Your task to perform on an android device: stop showing notifications on the lock screen Image 0: 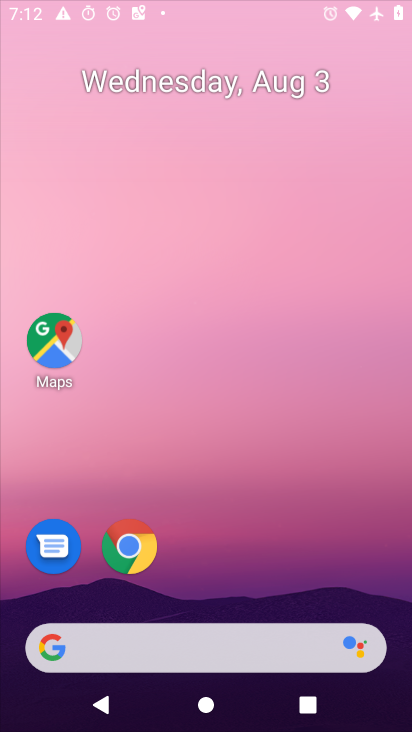
Step 0: press home button
Your task to perform on an android device: stop showing notifications on the lock screen Image 1: 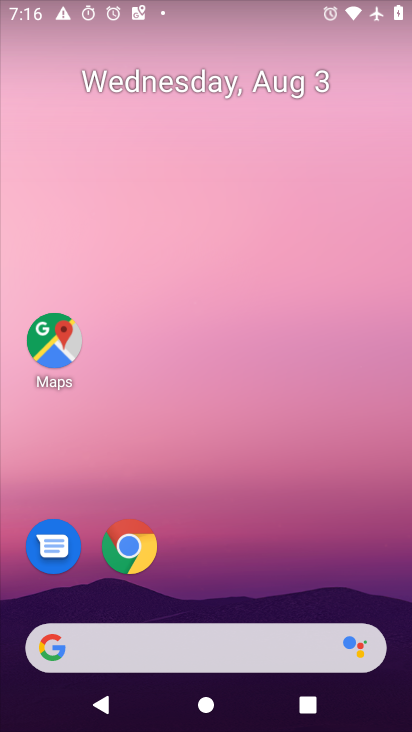
Step 1: drag from (217, 585) to (130, 13)
Your task to perform on an android device: stop showing notifications on the lock screen Image 2: 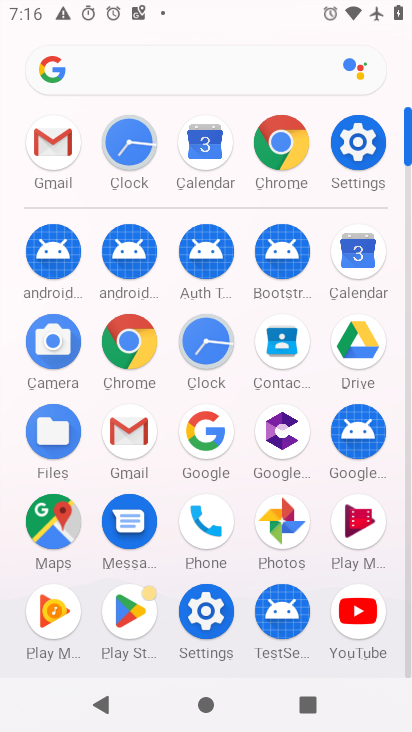
Step 2: click (354, 167)
Your task to perform on an android device: stop showing notifications on the lock screen Image 3: 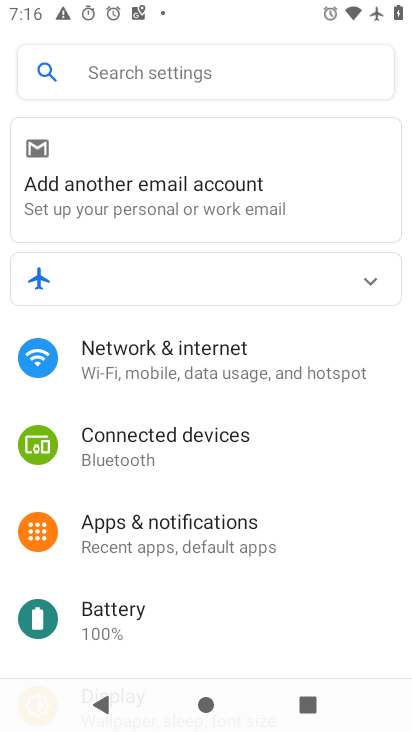
Step 3: click (151, 530)
Your task to perform on an android device: stop showing notifications on the lock screen Image 4: 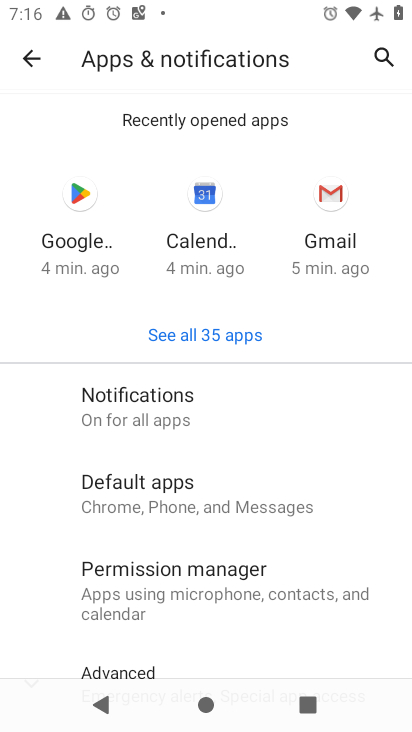
Step 4: click (138, 404)
Your task to perform on an android device: stop showing notifications on the lock screen Image 5: 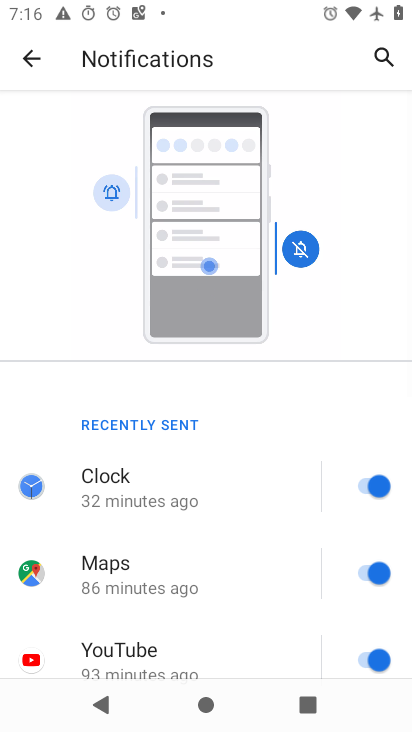
Step 5: drag from (278, 624) to (185, 6)
Your task to perform on an android device: stop showing notifications on the lock screen Image 6: 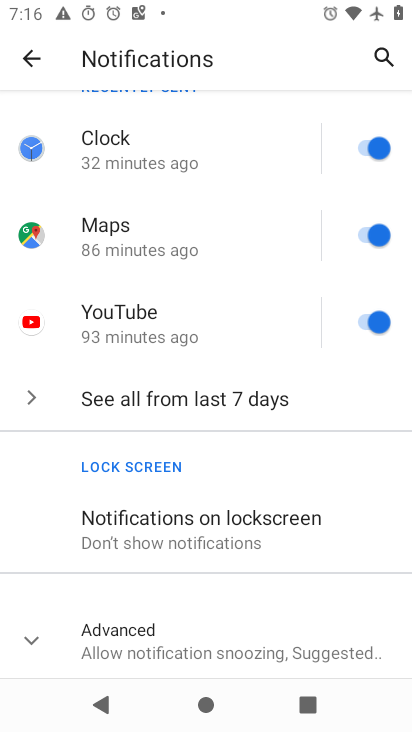
Step 6: click (190, 522)
Your task to perform on an android device: stop showing notifications on the lock screen Image 7: 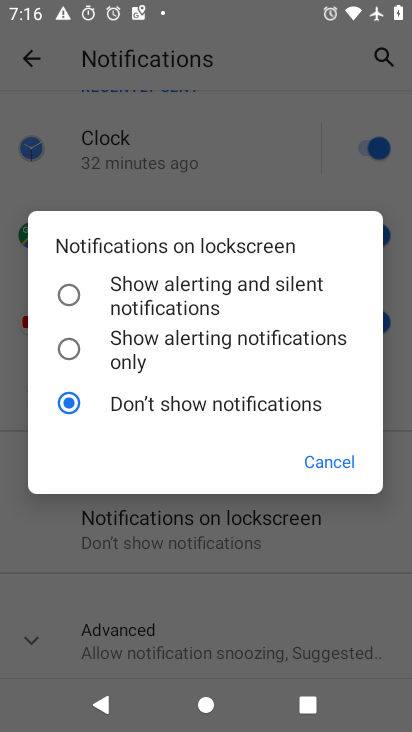
Step 7: task complete